Your task to perform on an android device: Do I have any events this weekend? Image 0: 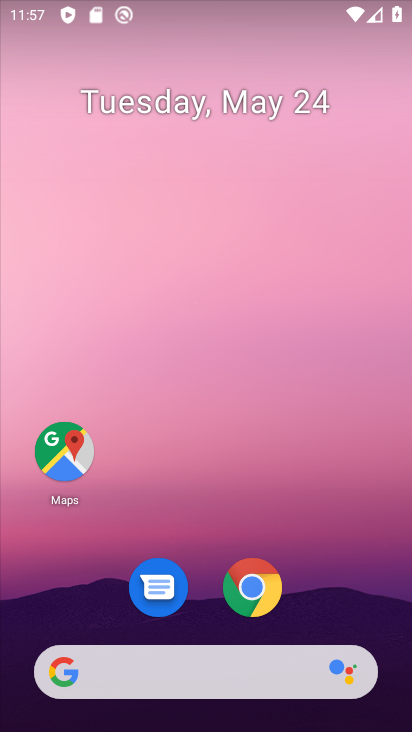
Step 0: drag from (207, 612) to (248, 22)
Your task to perform on an android device: Do I have any events this weekend? Image 1: 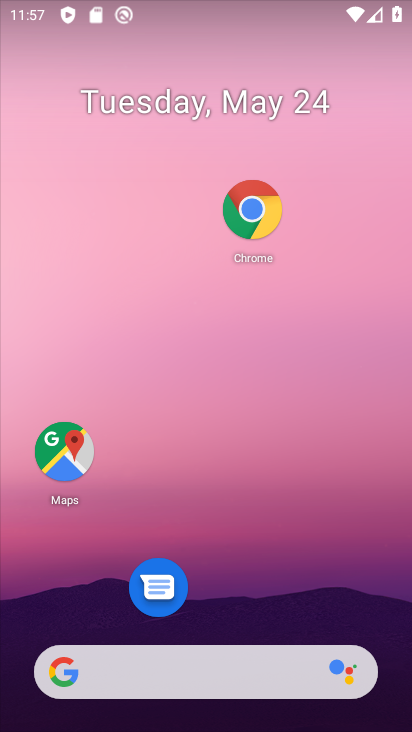
Step 1: drag from (329, 585) to (365, 102)
Your task to perform on an android device: Do I have any events this weekend? Image 2: 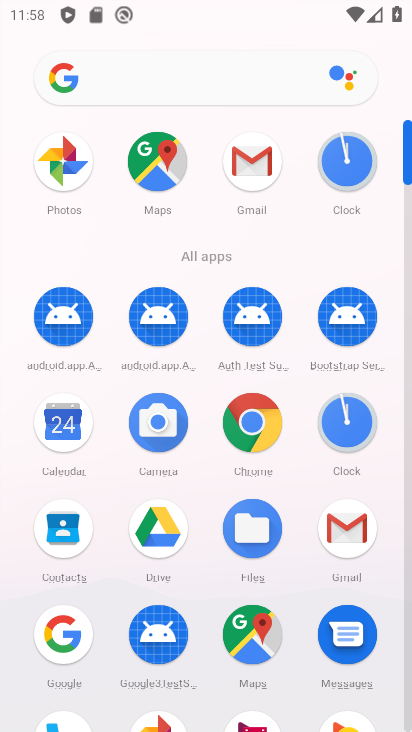
Step 2: click (63, 426)
Your task to perform on an android device: Do I have any events this weekend? Image 3: 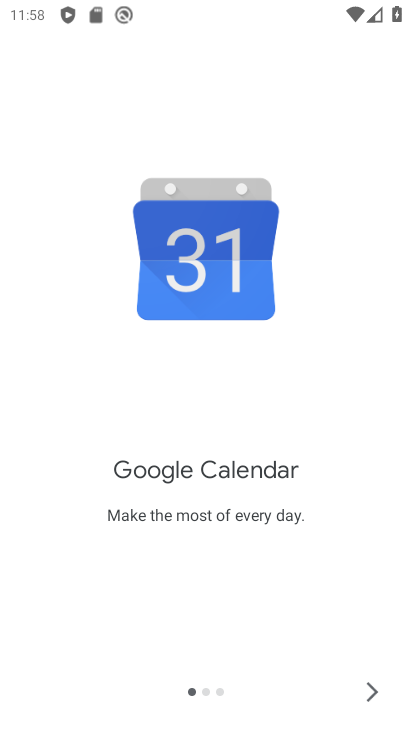
Step 3: click (365, 687)
Your task to perform on an android device: Do I have any events this weekend? Image 4: 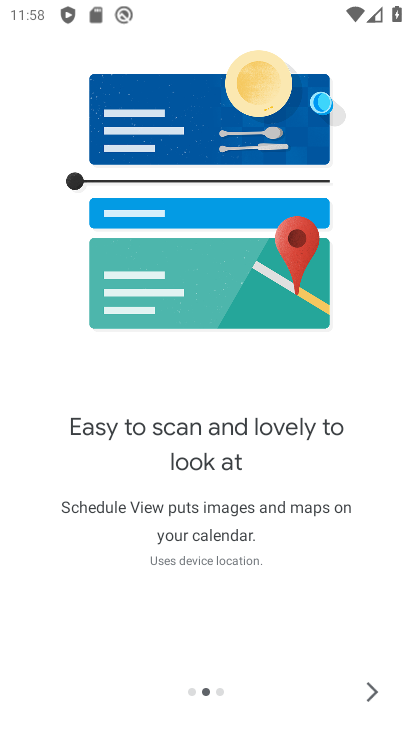
Step 4: click (365, 687)
Your task to perform on an android device: Do I have any events this weekend? Image 5: 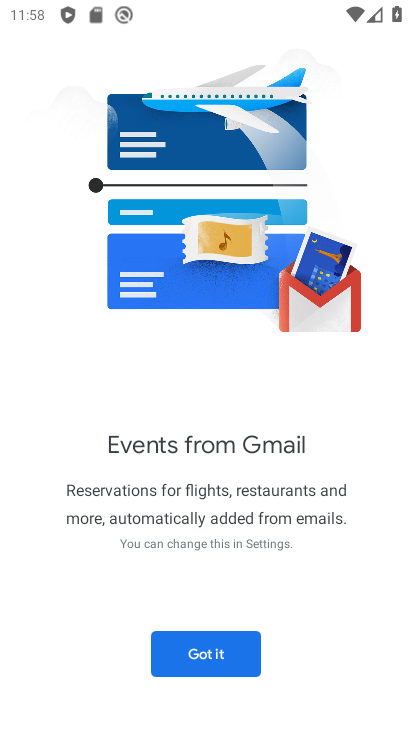
Step 5: click (209, 646)
Your task to perform on an android device: Do I have any events this weekend? Image 6: 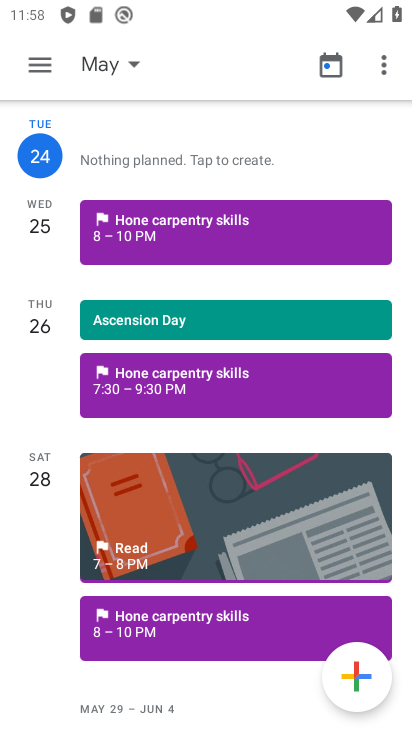
Step 6: click (36, 64)
Your task to perform on an android device: Do I have any events this weekend? Image 7: 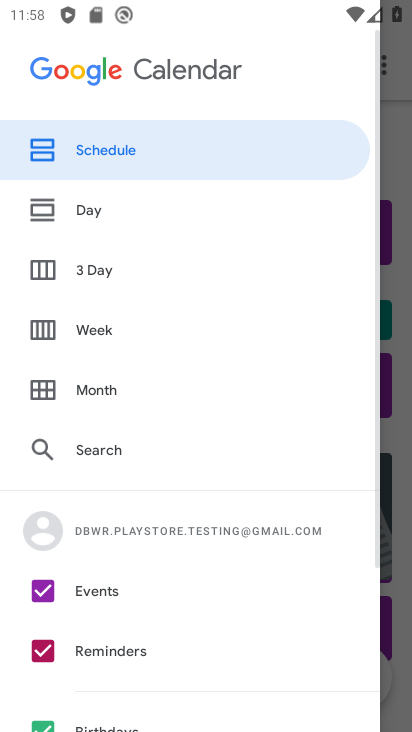
Step 7: drag from (90, 629) to (154, 260)
Your task to perform on an android device: Do I have any events this weekend? Image 8: 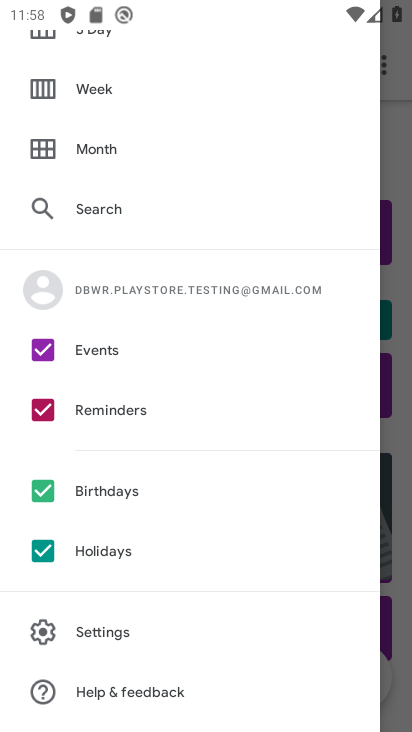
Step 8: click (37, 408)
Your task to perform on an android device: Do I have any events this weekend? Image 9: 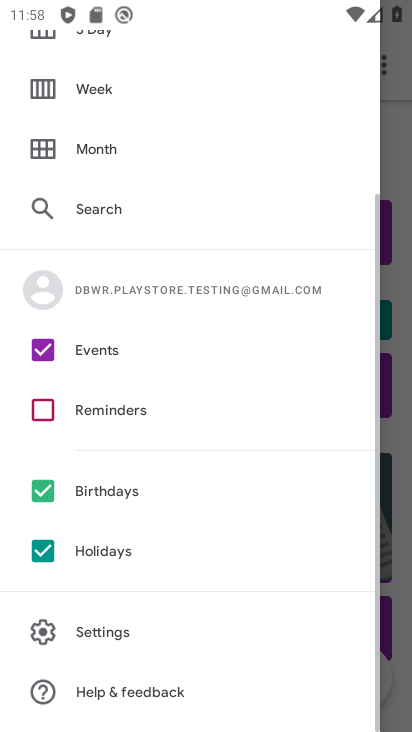
Step 9: click (46, 487)
Your task to perform on an android device: Do I have any events this weekend? Image 10: 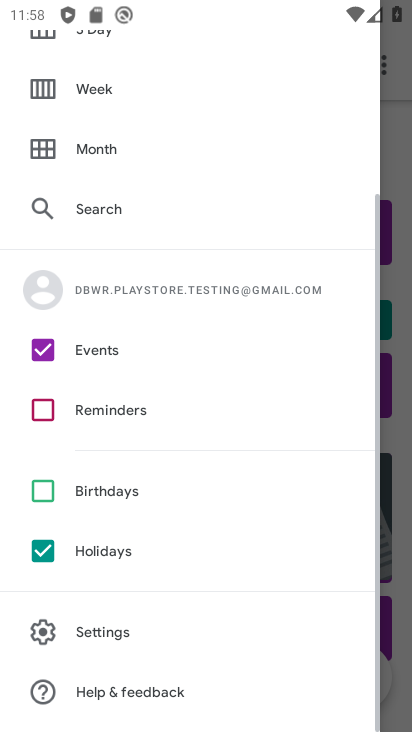
Step 10: click (37, 551)
Your task to perform on an android device: Do I have any events this weekend? Image 11: 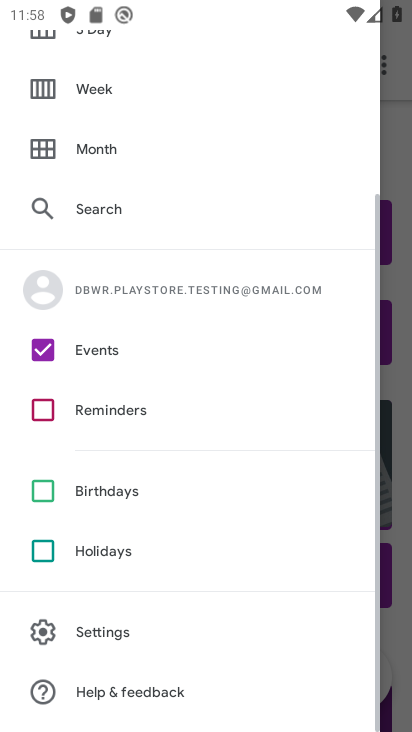
Step 11: drag from (99, 204) to (126, 595)
Your task to perform on an android device: Do I have any events this weekend? Image 12: 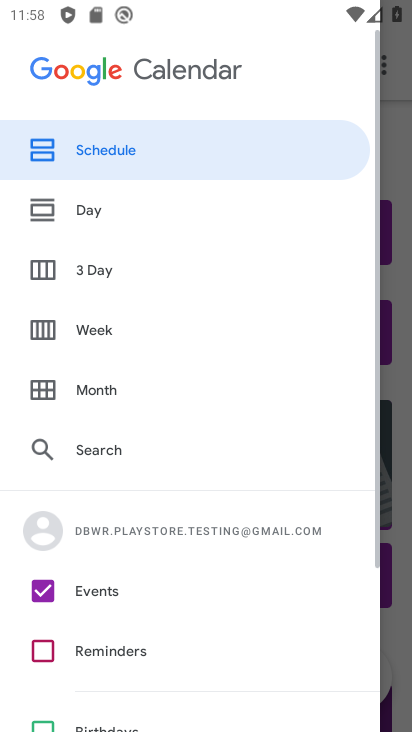
Step 12: click (71, 325)
Your task to perform on an android device: Do I have any events this weekend? Image 13: 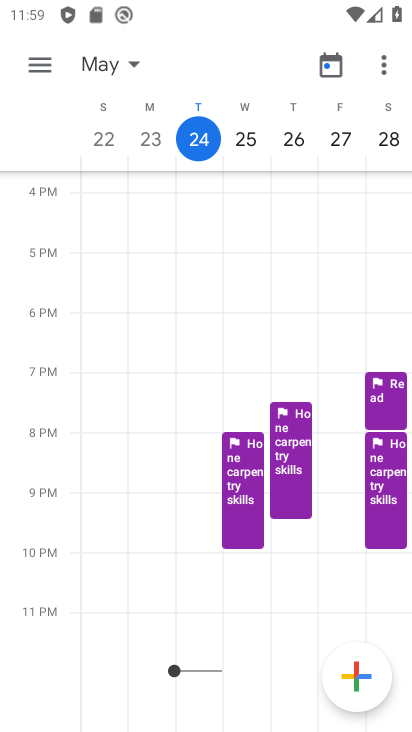
Step 13: click (202, 141)
Your task to perform on an android device: Do I have any events this weekend? Image 14: 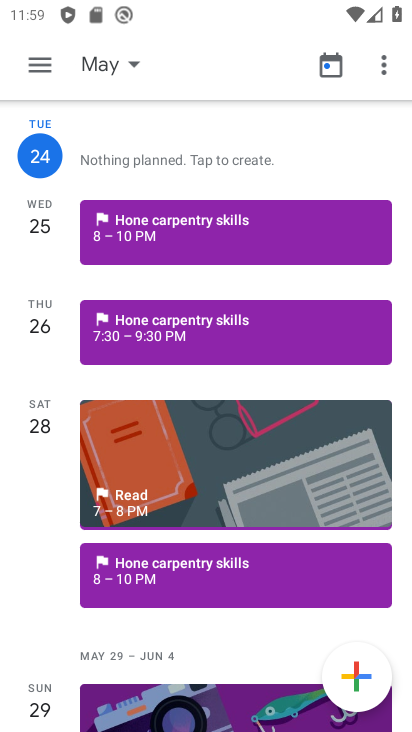
Step 14: task complete